Your task to perform on an android device: toggle data saver in the chrome app Image 0: 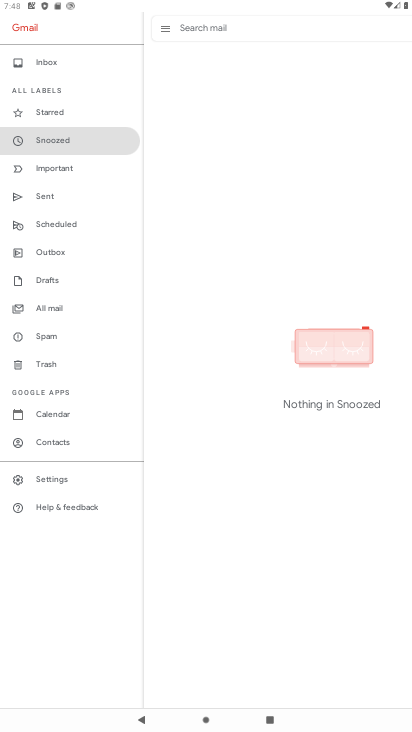
Step 0: press home button
Your task to perform on an android device: toggle data saver in the chrome app Image 1: 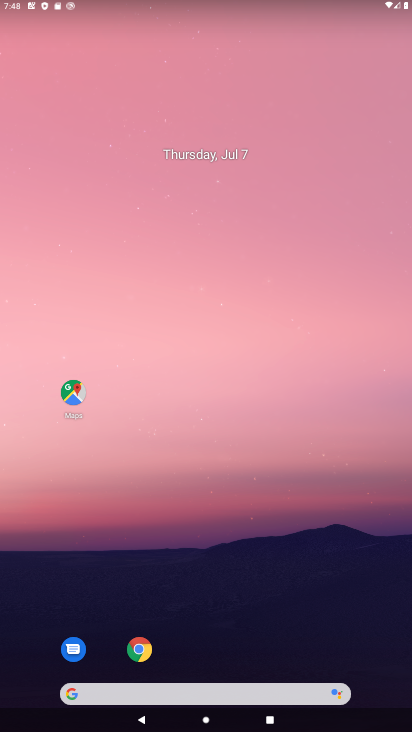
Step 1: drag from (180, 630) to (223, 0)
Your task to perform on an android device: toggle data saver in the chrome app Image 2: 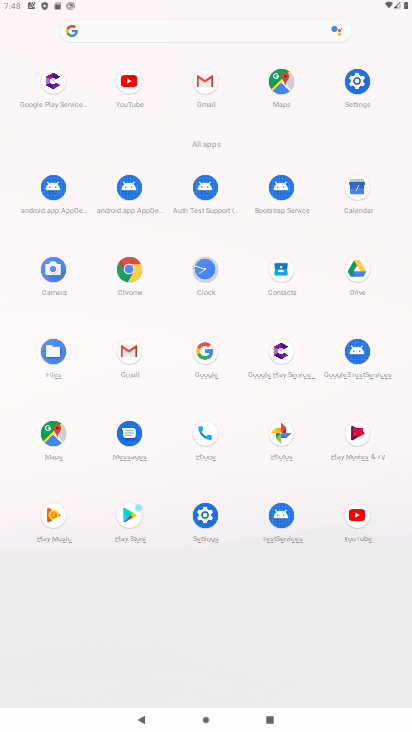
Step 2: click (128, 267)
Your task to perform on an android device: toggle data saver in the chrome app Image 3: 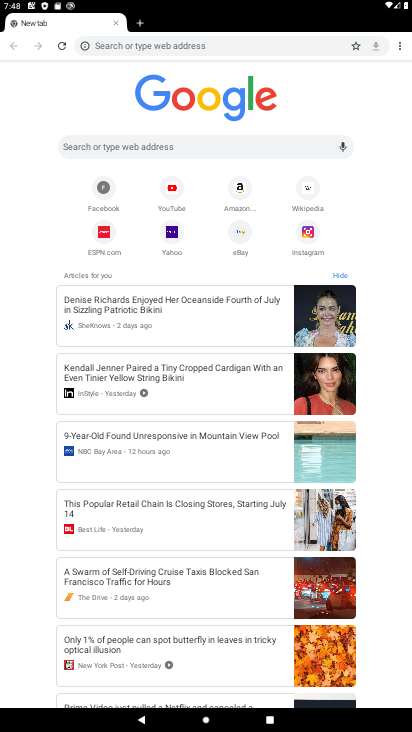
Step 3: click (397, 44)
Your task to perform on an android device: toggle data saver in the chrome app Image 4: 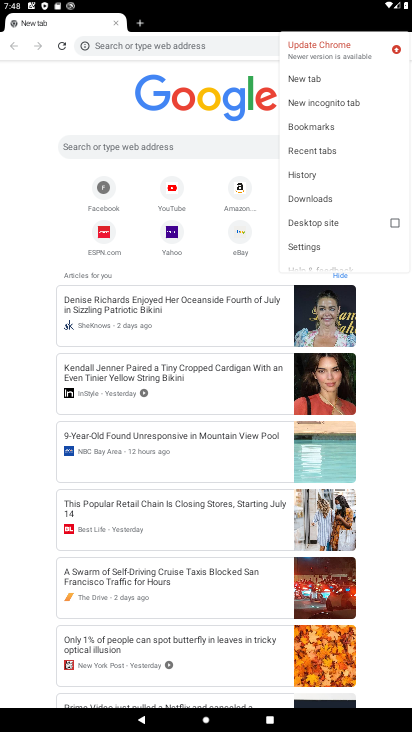
Step 4: click (313, 243)
Your task to perform on an android device: toggle data saver in the chrome app Image 5: 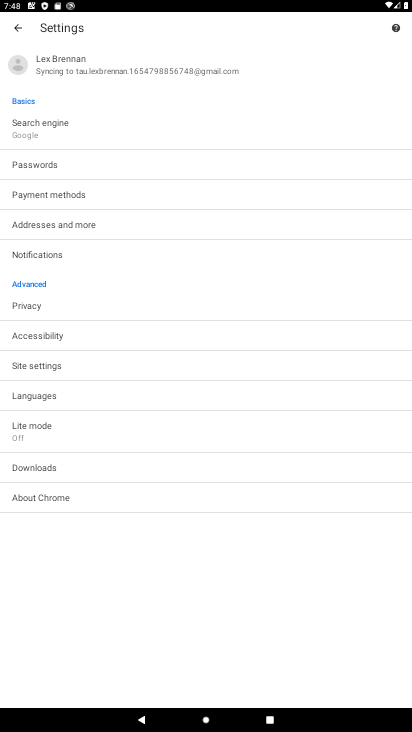
Step 5: click (39, 431)
Your task to perform on an android device: toggle data saver in the chrome app Image 6: 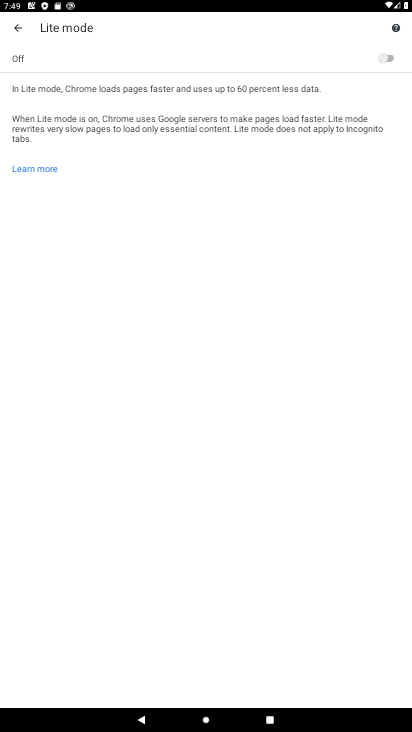
Step 6: click (374, 57)
Your task to perform on an android device: toggle data saver in the chrome app Image 7: 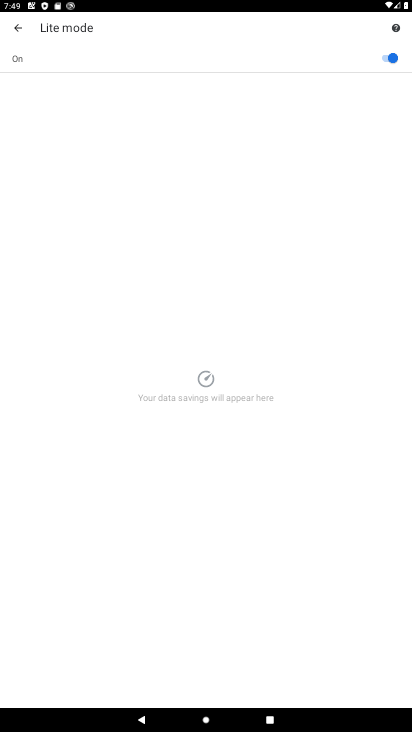
Step 7: task complete